Your task to perform on an android device: turn pop-ups off in chrome Image 0: 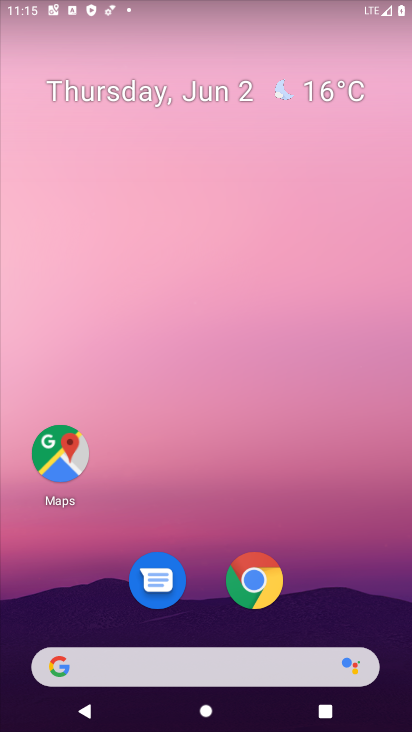
Step 0: drag from (231, 577) to (235, 295)
Your task to perform on an android device: turn pop-ups off in chrome Image 1: 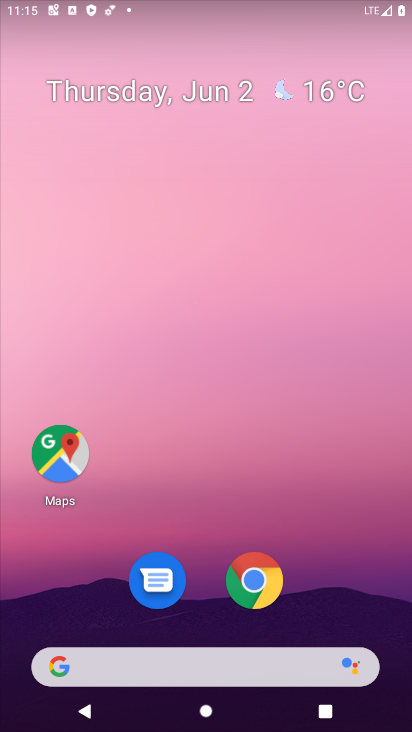
Step 1: drag from (190, 625) to (188, 373)
Your task to perform on an android device: turn pop-ups off in chrome Image 2: 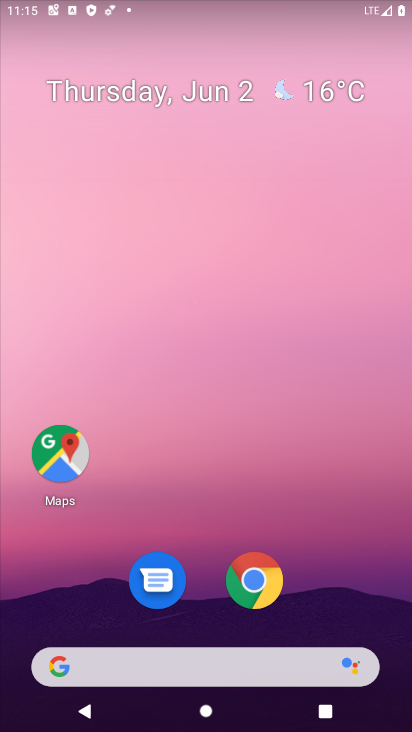
Step 2: click (262, 594)
Your task to perform on an android device: turn pop-ups off in chrome Image 3: 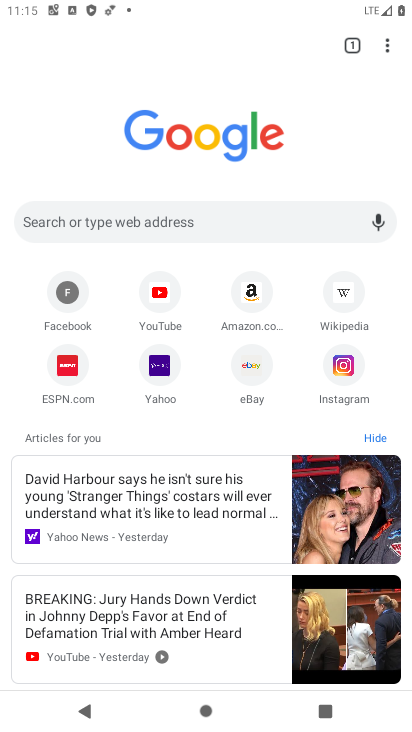
Step 3: click (390, 55)
Your task to perform on an android device: turn pop-ups off in chrome Image 4: 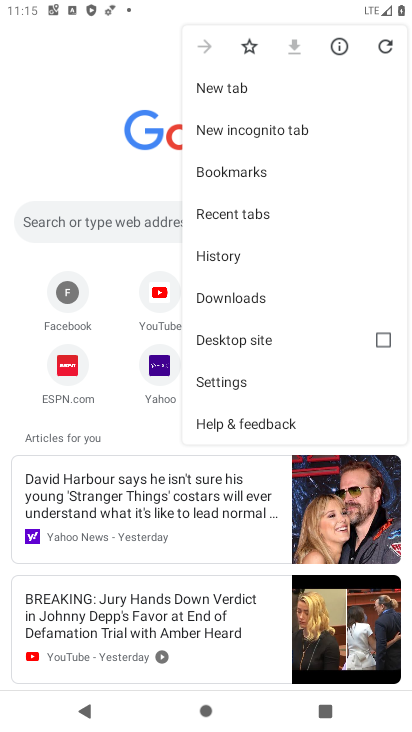
Step 4: click (274, 389)
Your task to perform on an android device: turn pop-ups off in chrome Image 5: 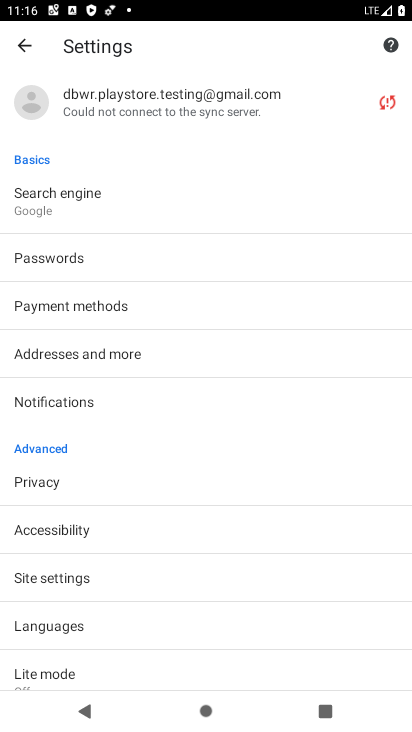
Step 5: click (92, 574)
Your task to perform on an android device: turn pop-ups off in chrome Image 6: 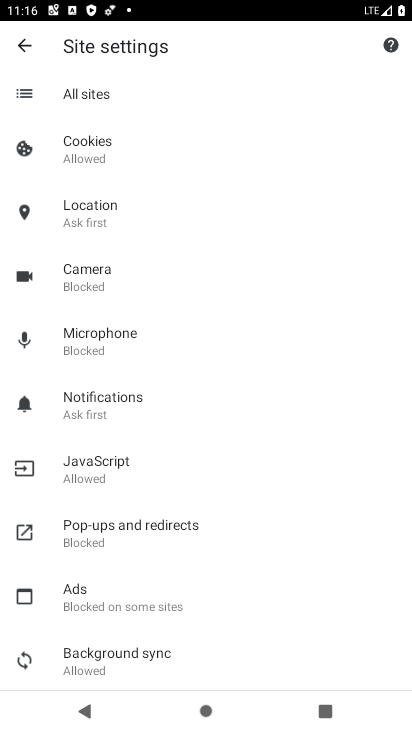
Step 6: click (159, 534)
Your task to perform on an android device: turn pop-ups off in chrome Image 7: 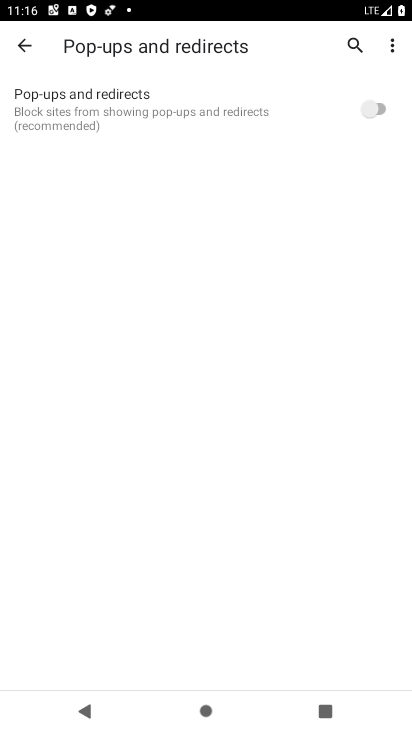
Step 7: task complete